Your task to perform on an android device: turn on wifi Image 0: 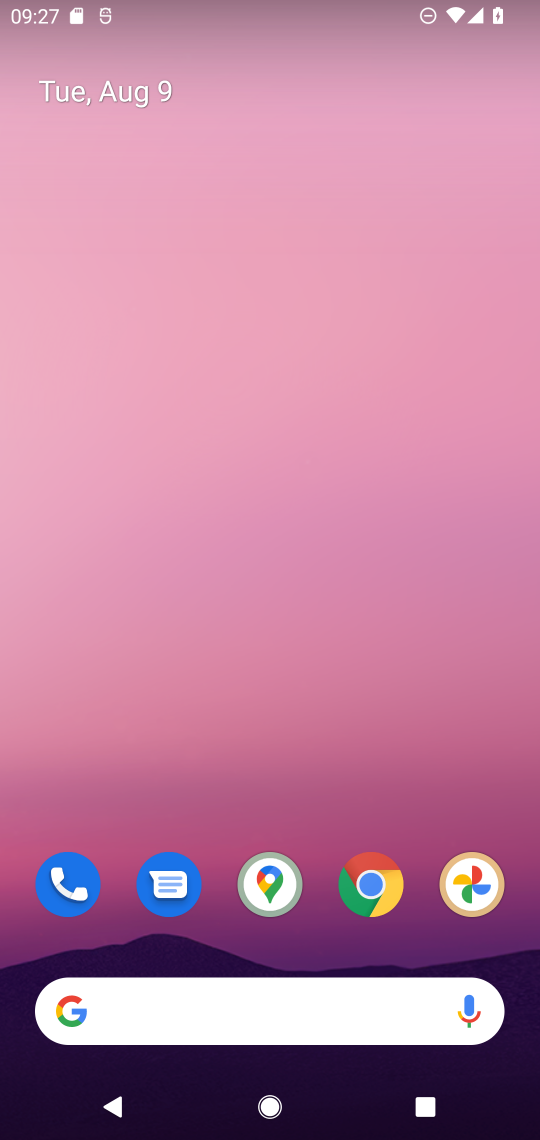
Step 0: drag from (433, 925) to (350, 228)
Your task to perform on an android device: turn on wifi Image 1: 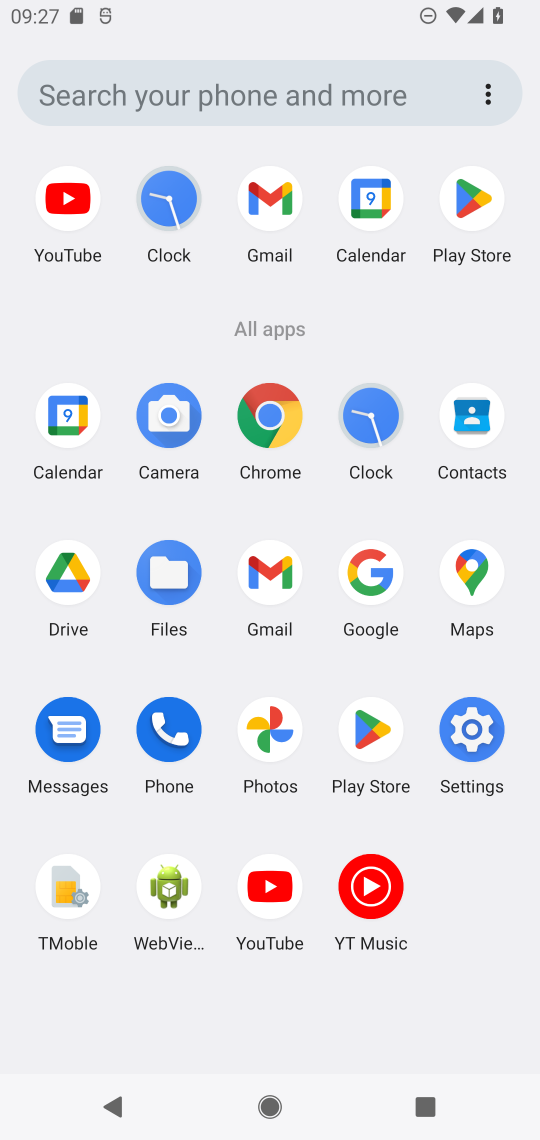
Step 1: click (453, 735)
Your task to perform on an android device: turn on wifi Image 2: 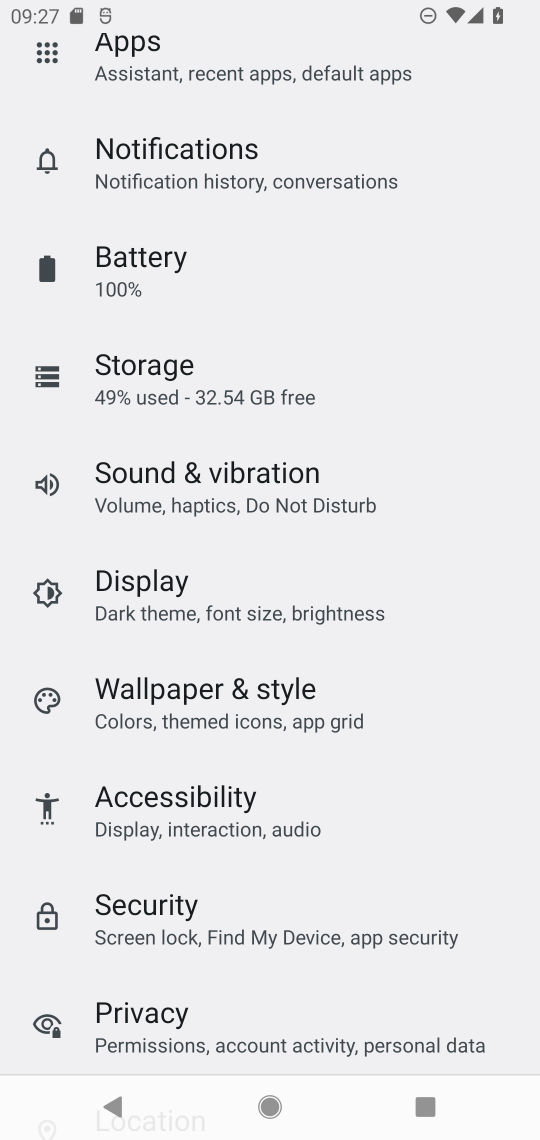
Step 2: drag from (271, 183) to (366, 934)
Your task to perform on an android device: turn on wifi Image 3: 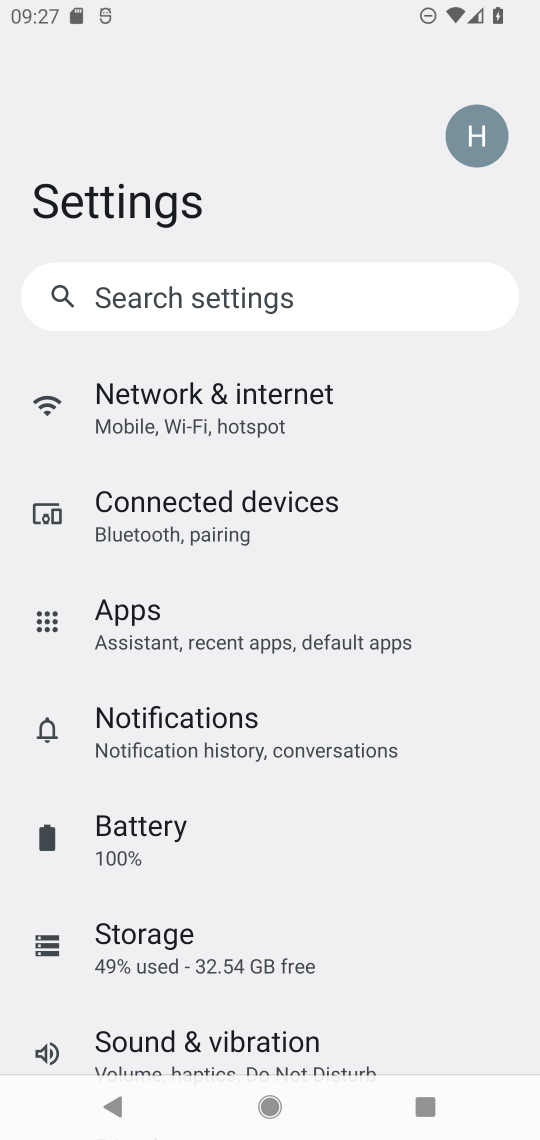
Step 3: drag from (213, 288) to (243, 902)
Your task to perform on an android device: turn on wifi Image 4: 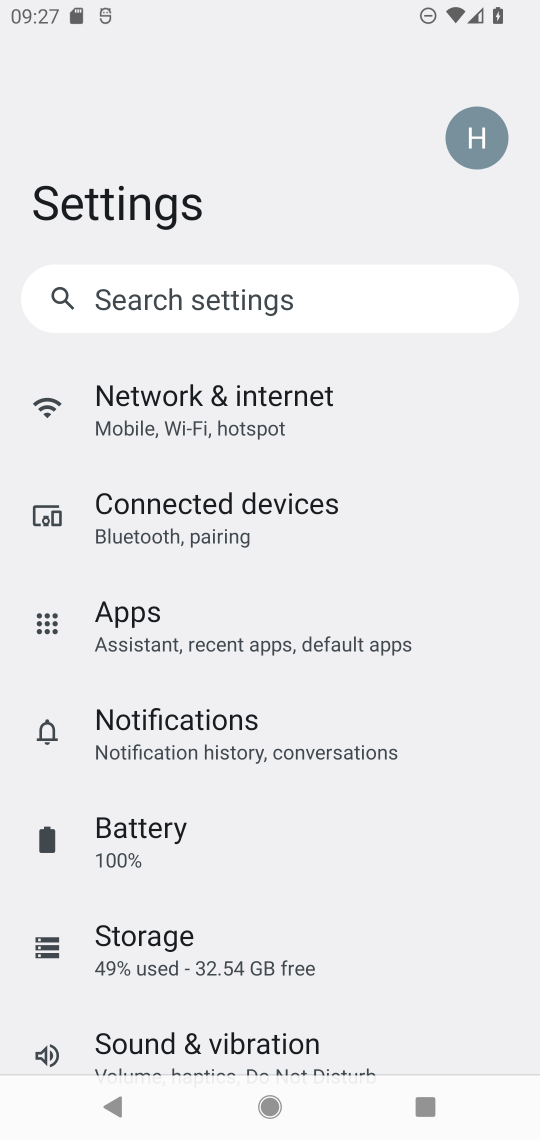
Step 4: click (240, 369)
Your task to perform on an android device: turn on wifi Image 5: 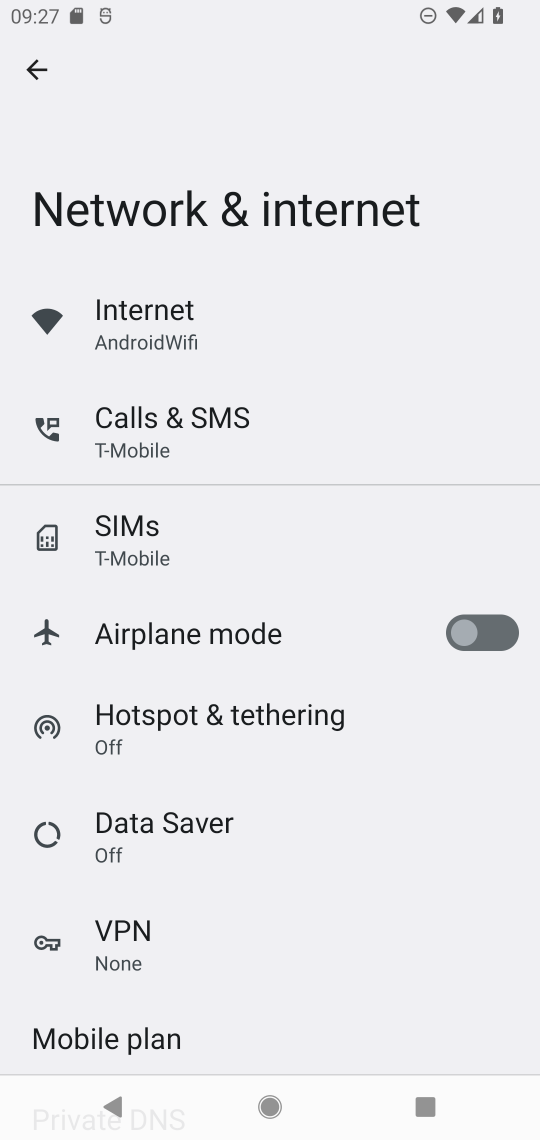
Step 5: click (268, 305)
Your task to perform on an android device: turn on wifi Image 6: 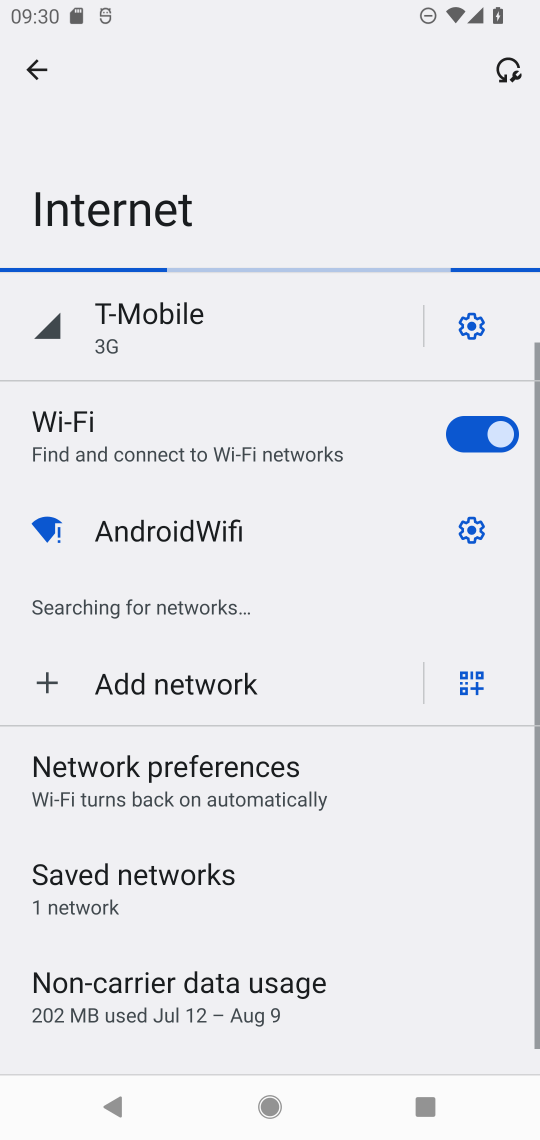
Step 6: task complete